Your task to perform on an android device: turn smart compose on in the gmail app Image 0: 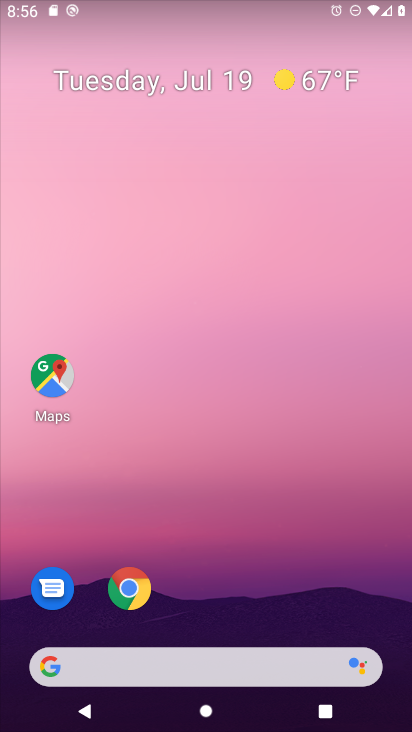
Step 0: drag from (354, 582) to (349, 147)
Your task to perform on an android device: turn smart compose on in the gmail app Image 1: 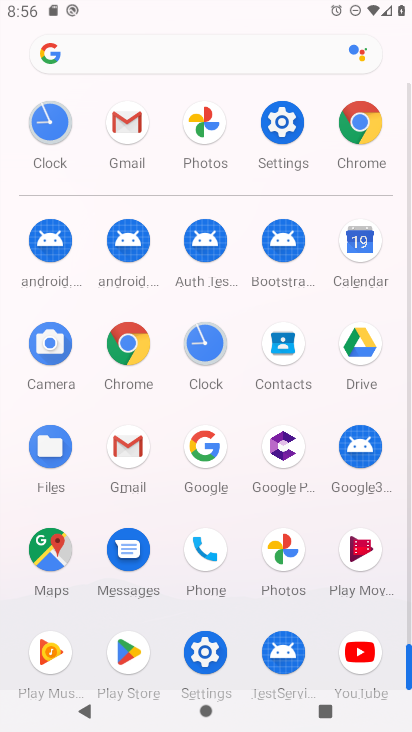
Step 1: click (126, 448)
Your task to perform on an android device: turn smart compose on in the gmail app Image 2: 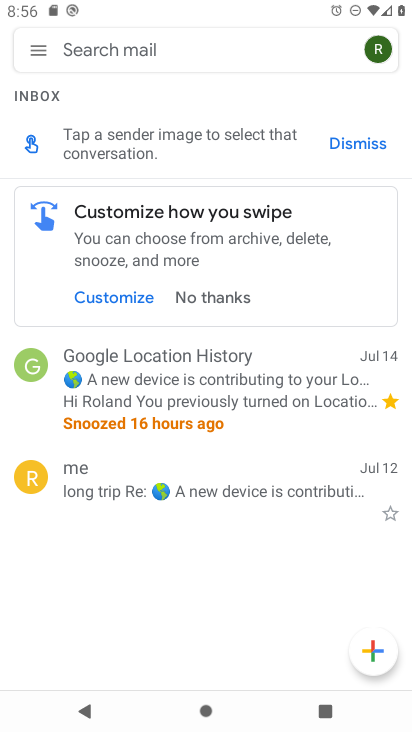
Step 2: click (37, 54)
Your task to perform on an android device: turn smart compose on in the gmail app Image 3: 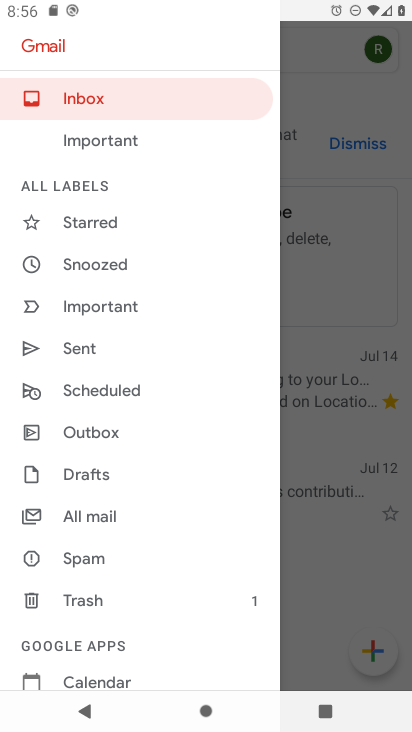
Step 3: drag from (208, 525) to (208, 425)
Your task to perform on an android device: turn smart compose on in the gmail app Image 4: 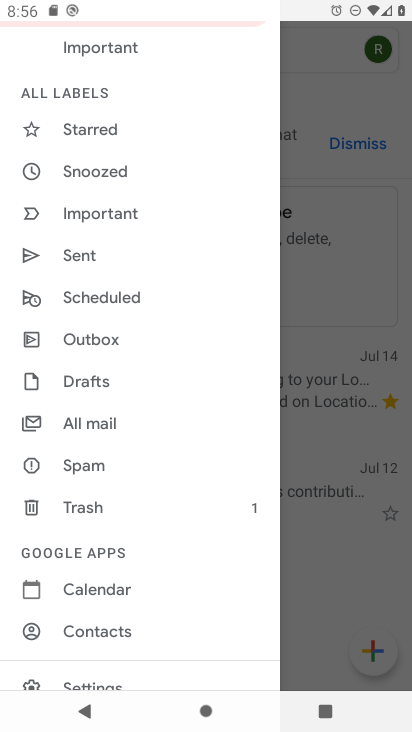
Step 4: drag from (187, 591) to (191, 461)
Your task to perform on an android device: turn smart compose on in the gmail app Image 5: 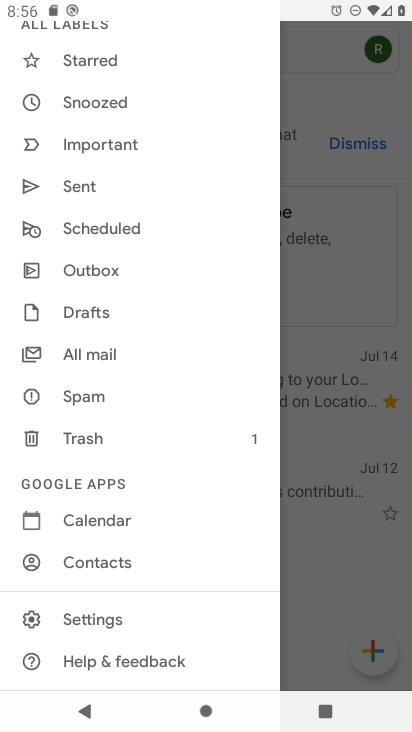
Step 5: click (168, 604)
Your task to perform on an android device: turn smart compose on in the gmail app Image 6: 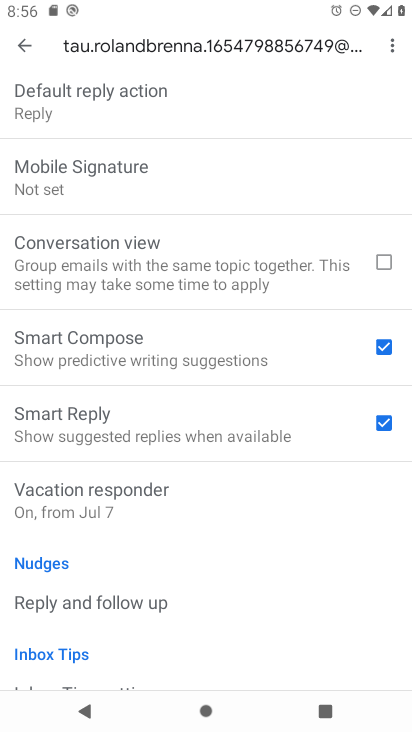
Step 6: task complete